Your task to perform on an android device: Go to Reddit.com Image 0: 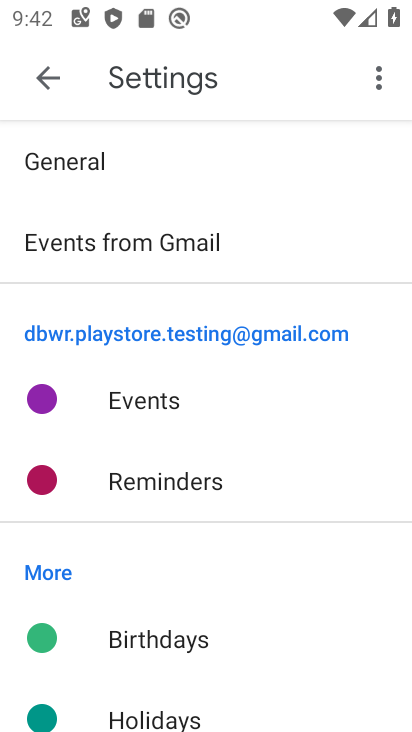
Step 0: press home button
Your task to perform on an android device: Go to Reddit.com Image 1: 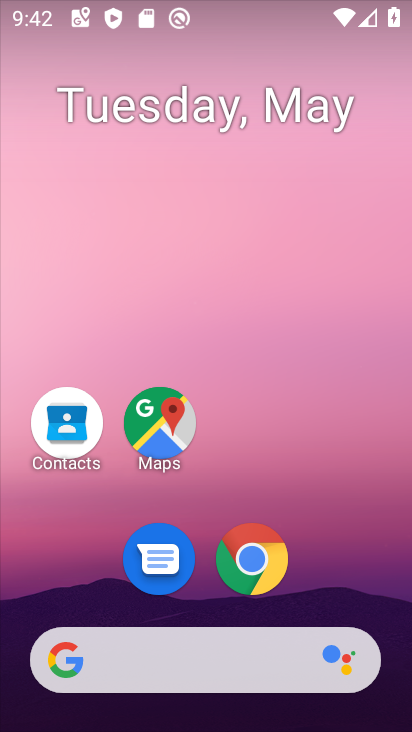
Step 1: click (184, 675)
Your task to perform on an android device: Go to Reddit.com Image 2: 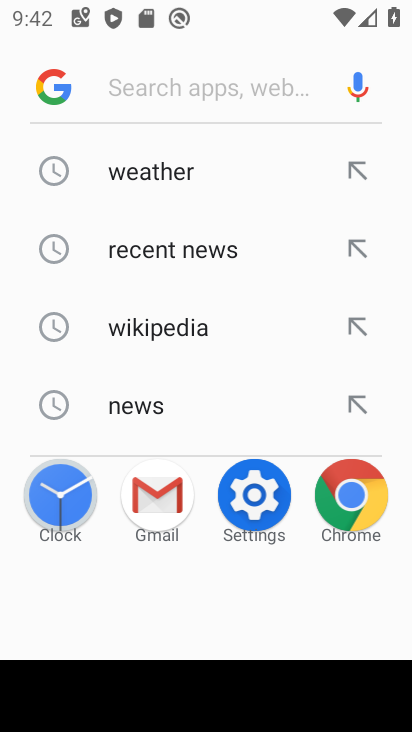
Step 2: click (244, 91)
Your task to perform on an android device: Go to Reddit.com Image 3: 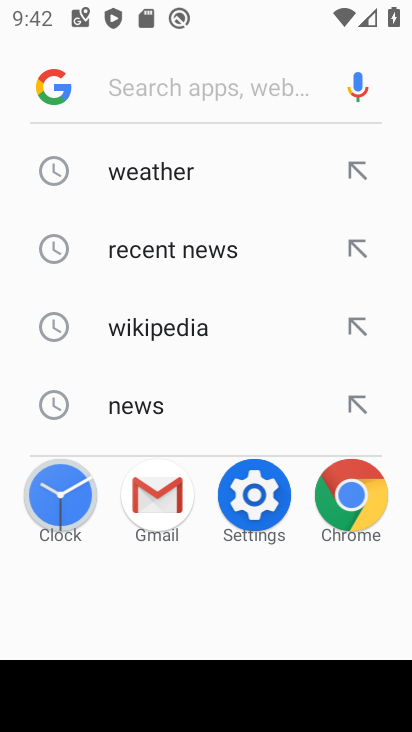
Step 3: type "reddit.com"
Your task to perform on an android device: Go to Reddit.com Image 4: 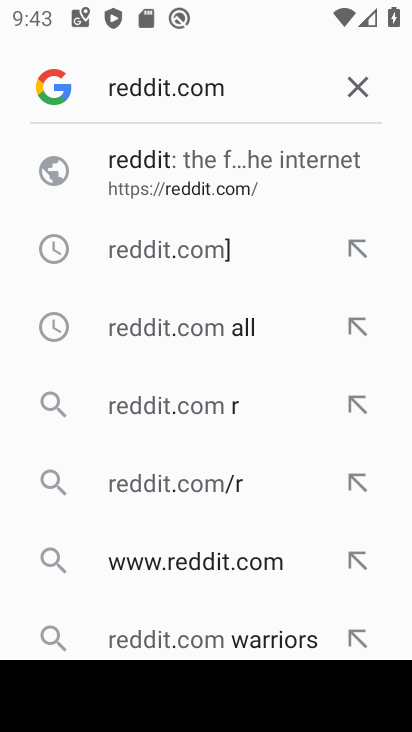
Step 4: click (130, 159)
Your task to perform on an android device: Go to Reddit.com Image 5: 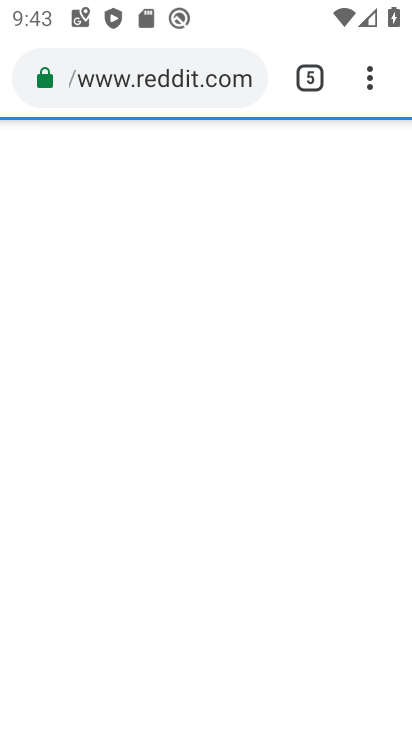
Step 5: task complete